Your task to perform on an android device: open device folders in google photos Image 0: 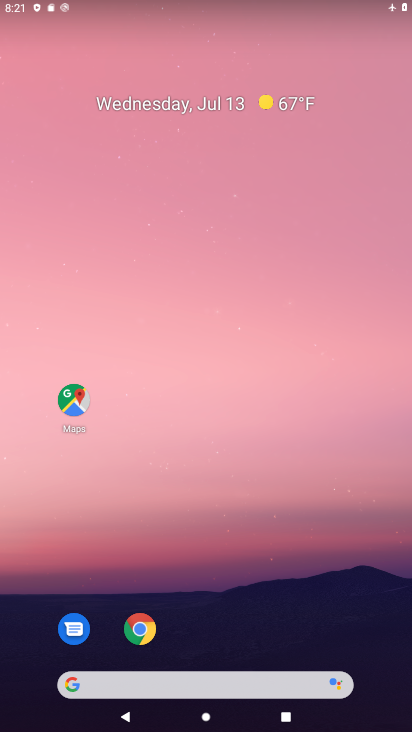
Step 0: drag from (218, 614) to (22, 11)
Your task to perform on an android device: open device folders in google photos Image 1: 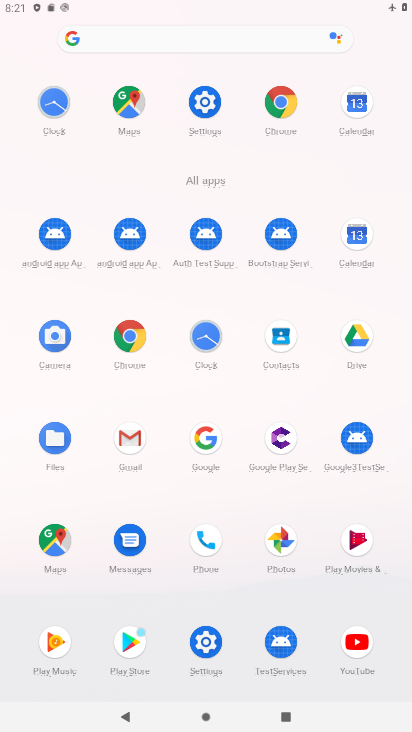
Step 1: click (280, 557)
Your task to perform on an android device: open device folders in google photos Image 2: 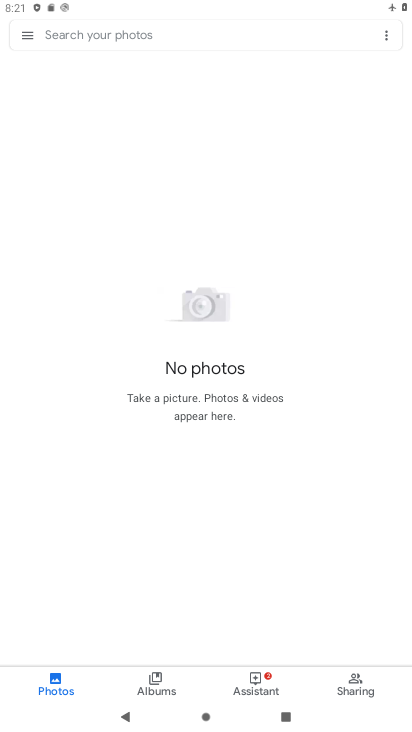
Step 2: click (23, 28)
Your task to perform on an android device: open device folders in google photos Image 3: 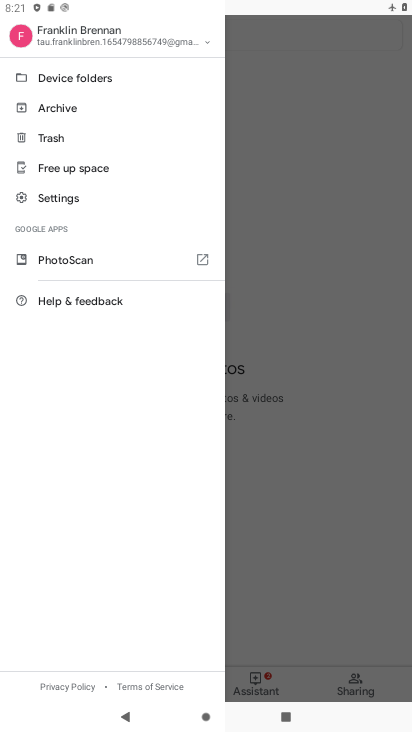
Step 3: click (83, 80)
Your task to perform on an android device: open device folders in google photos Image 4: 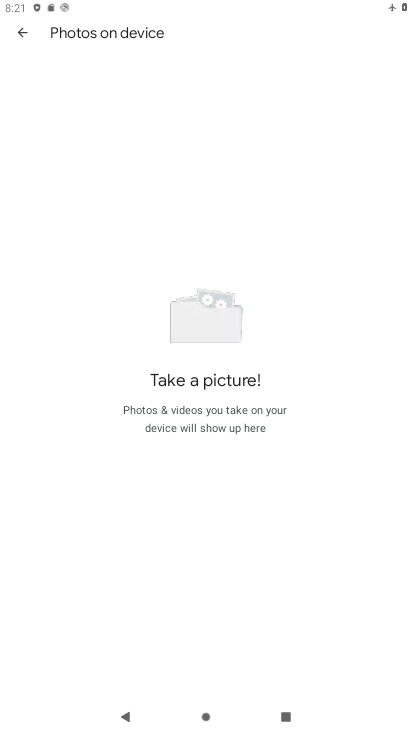
Step 4: task complete